Your task to perform on an android device: Open the calendar app, open the side menu, and click the "Day" option Image 0: 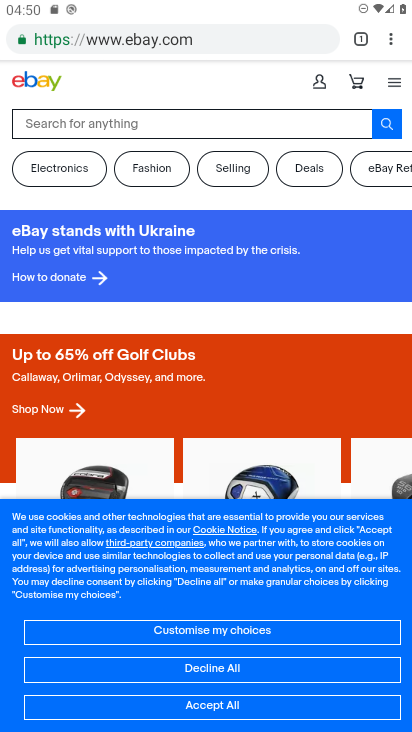
Step 0: press home button
Your task to perform on an android device: Open the calendar app, open the side menu, and click the "Day" option Image 1: 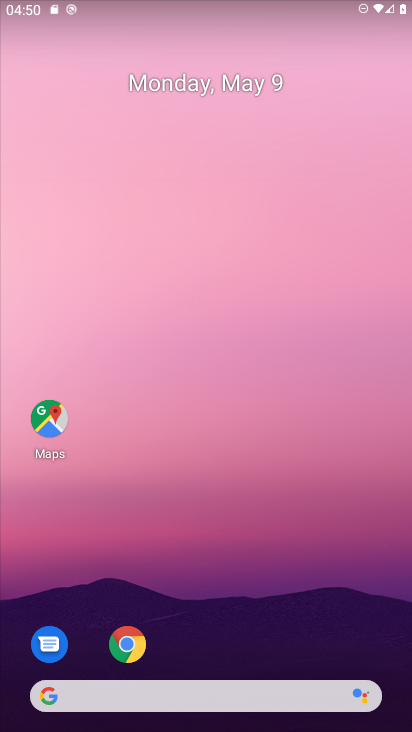
Step 1: drag from (220, 607) to (210, 30)
Your task to perform on an android device: Open the calendar app, open the side menu, and click the "Day" option Image 2: 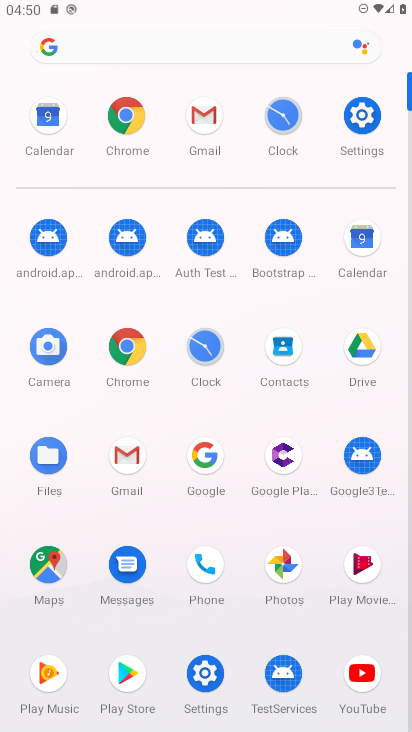
Step 2: click (364, 238)
Your task to perform on an android device: Open the calendar app, open the side menu, and click the "Day" option Image 3: 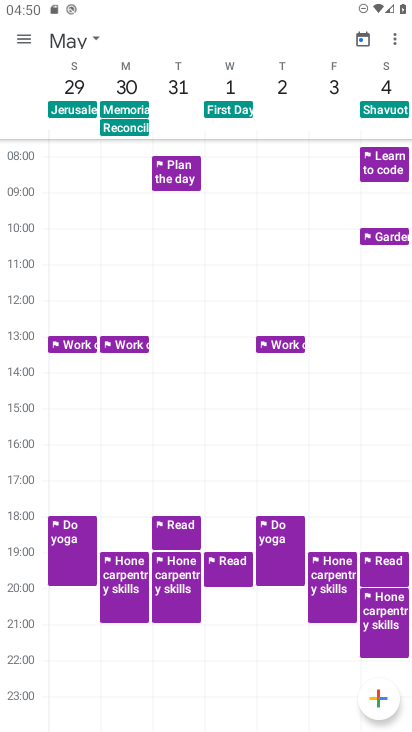
Step 3: click (22, 34)
Your task to perform on an android device: Open the calendar app, open the side menu, and click the "Day" option Image 4: 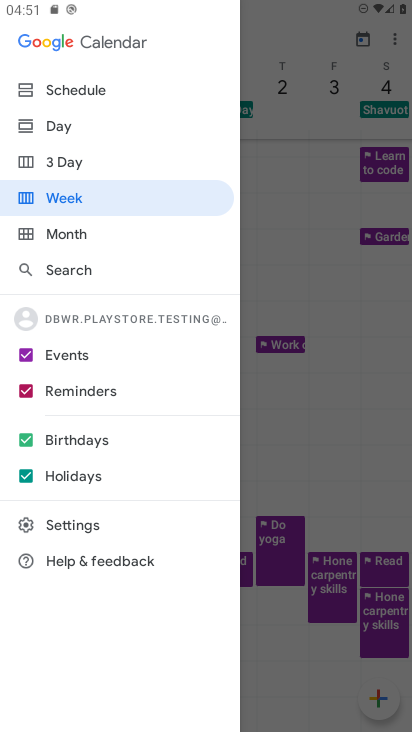
Step 4: click (52, 128)
Your task to perform on an android device: Open the calendar app, open the side menu, and click the "Day" option Image 5: 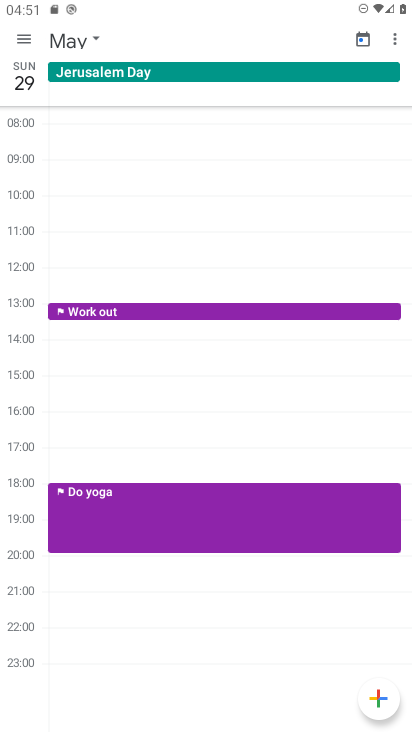
Step 5: task complete